Your task to perform on an android device: Open notification settings Image 0: 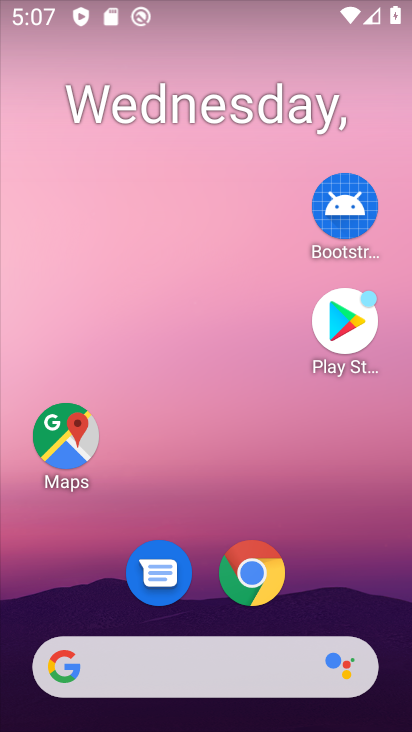
Step 0: drag from (297, 131) to (320, 11)
Your task to perform on an android device: Open notification settings Image 1: 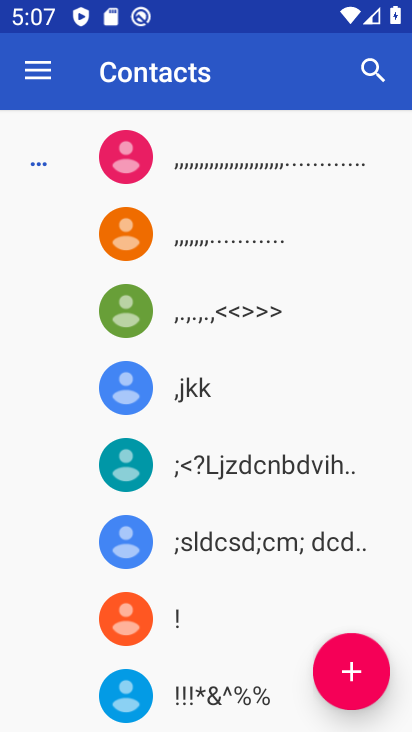
Step 1: press home button
Your task to perform on an android device: Open notification settings Image 2: 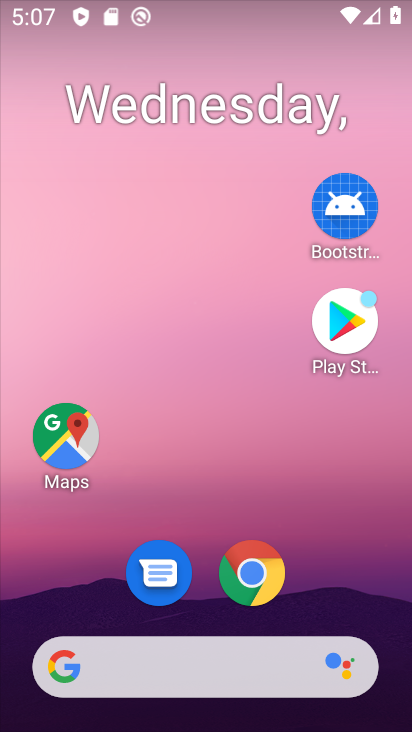
Step 2: drag from (329, 564) to (306, 122)
Your task to perform on an android device: Open notification settings Image 3: 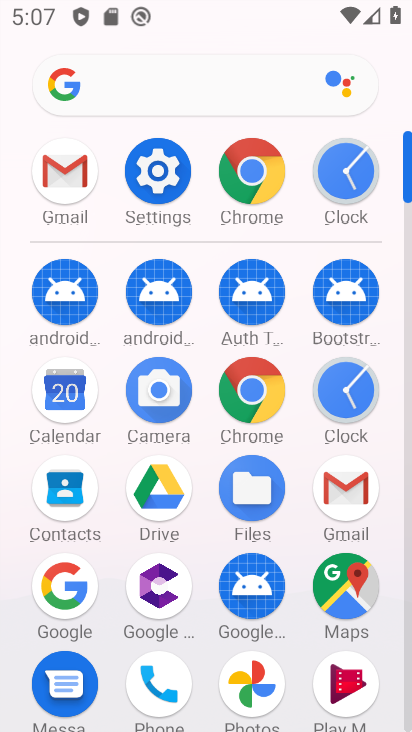
Step 3: click (163, 172)
Your task to perform on an android device: Open notification settings Image 4: 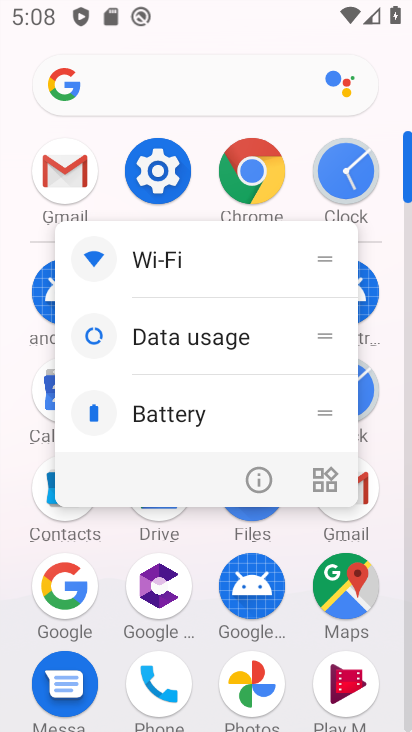
Step 4: click (157, 164)
Your task to perform on an android device: Open notification settings Image 5: 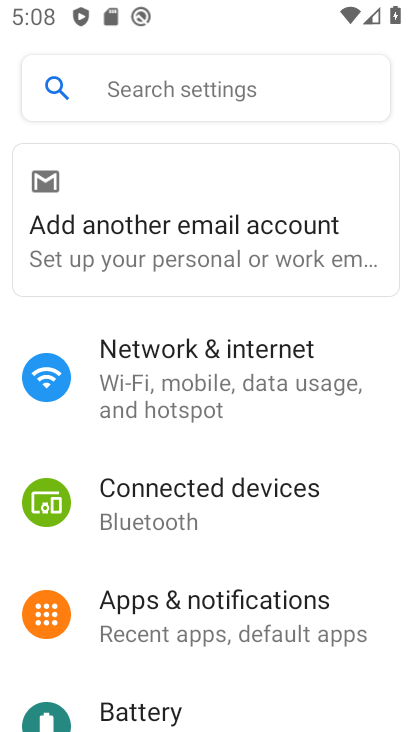
Step 5: click (172, 627)
Your task to perform on an android device: Open notification settings Image 6: 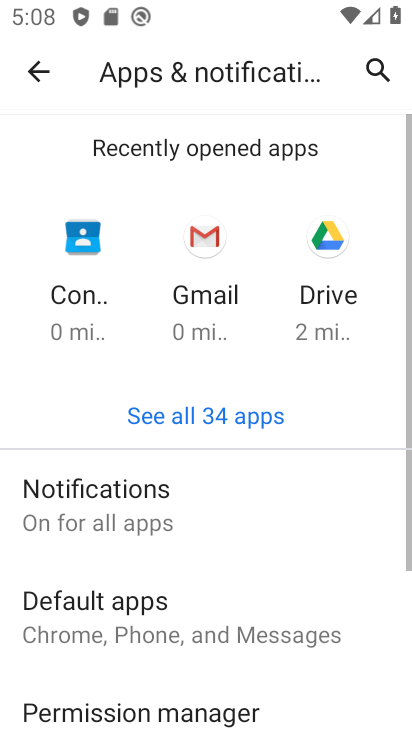
Step 6: task complete